Your task to perform on an android device: star an email in the gmail app Image 0: 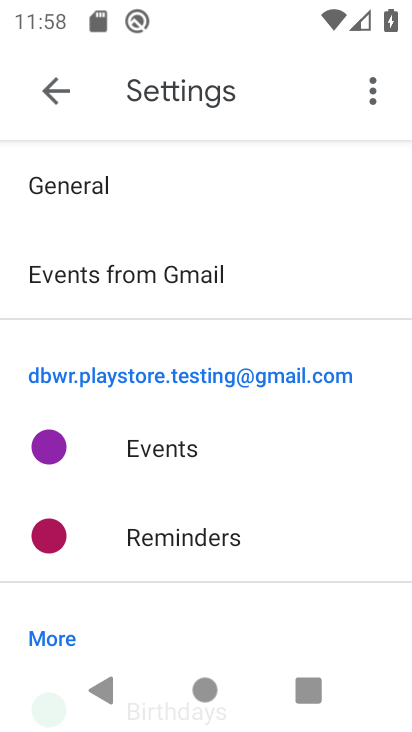
Step 0: press home button
Your task to perform on an android device: star an email in the gmail app Image 1: 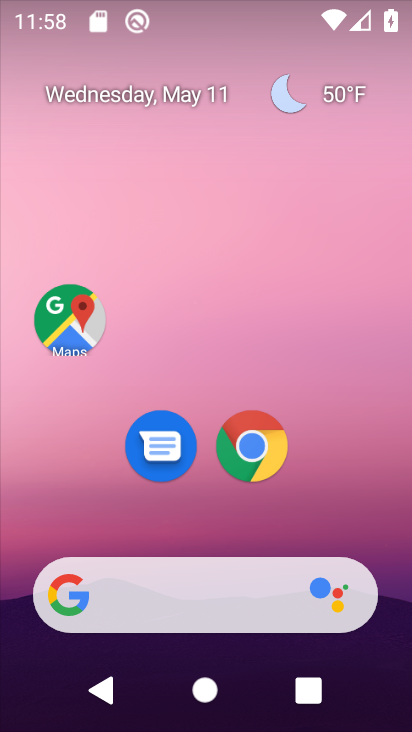
Step 1: drag from (381, 478) to (361, 243)
Your task to perform on an android device: star an email in the gmail app Image 2: 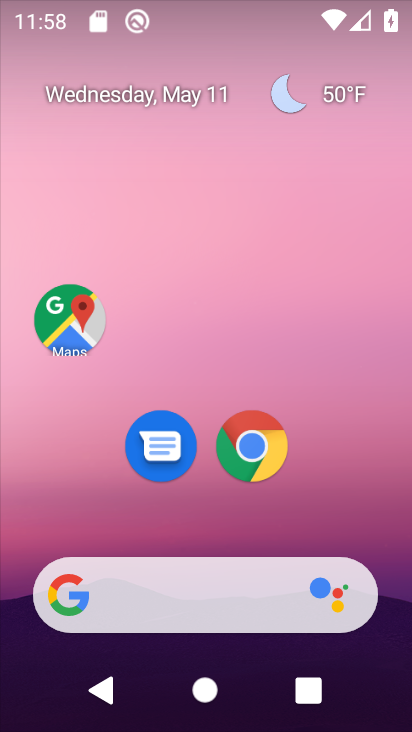
Step 2: drag from (346, 474) to (352, 256)
Your task to perform on an android device: star an email in the gmail app Image 3: 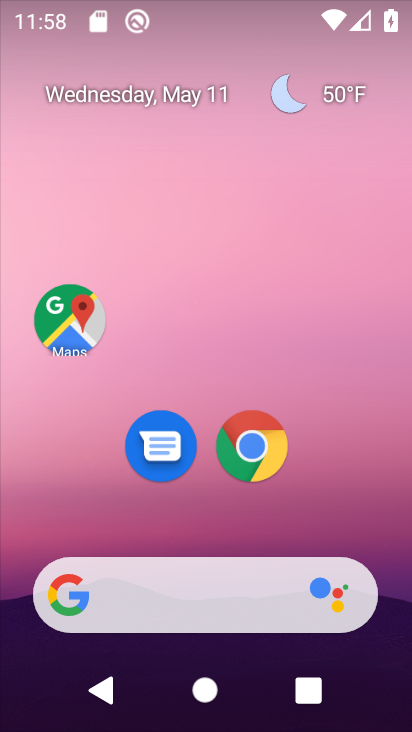
Step 3: drag from (330, 472) to (310, 337)
Your task to perform on an android device: star an email in the gmail app Image 4: 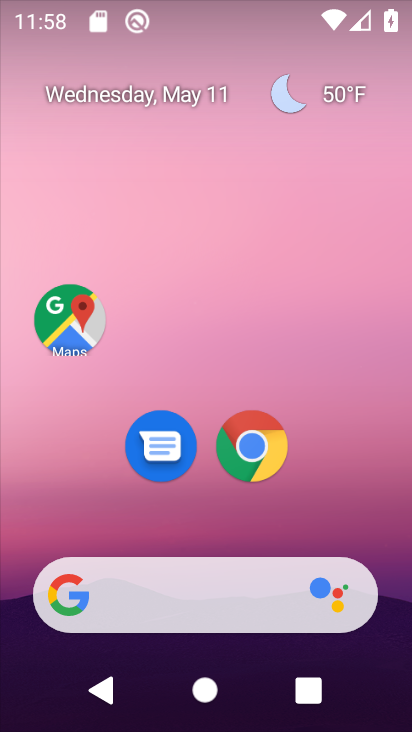
Step 4: drag from (397, 611) to (384, 320)
Your task to perform on an android device: star an email in the gmail app Image 5: 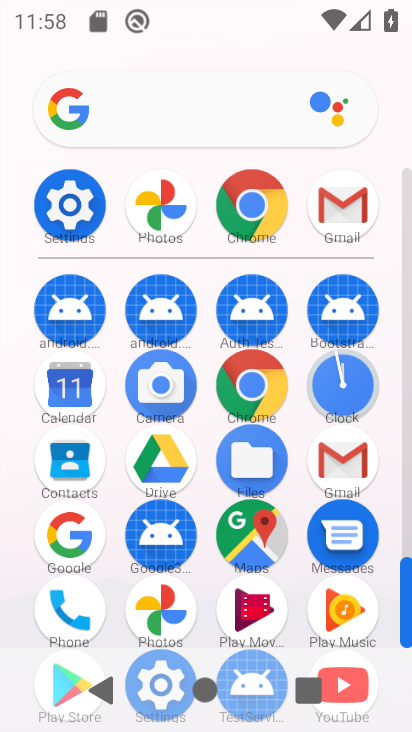
Step 5: click (333, 217)
Your task to perform on an android device: star an email in the gmail app Image 6: 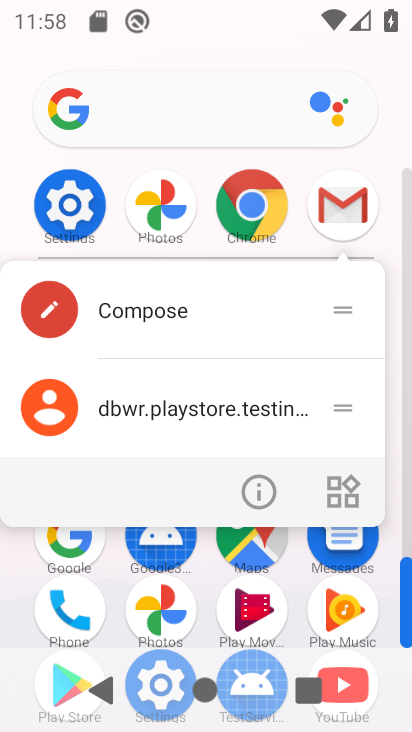
Step 6: click (333, 217)
Your task to perform on an android device: star an email in the gmail app Image 7: 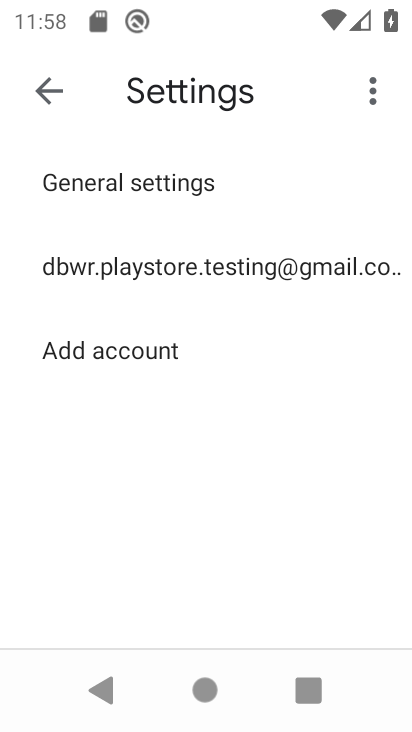
Step 7: task complete